Your task to perform on an android device: Search for pizza restaurants on Maps Image 0: 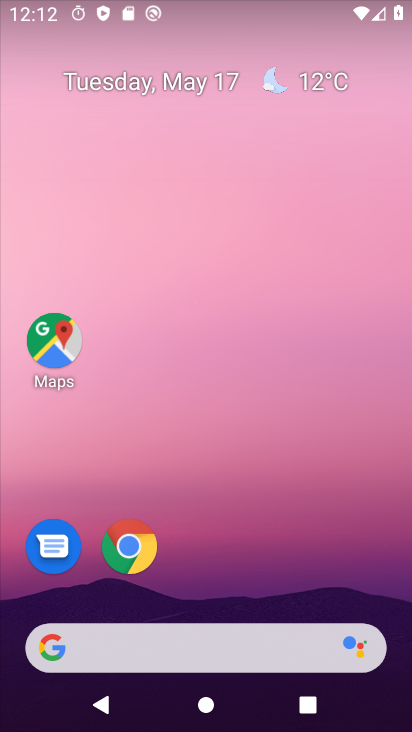
Step 0: click (48, 356)
Your task to perform on an android device: Search for pizza restaurants on Maps Image 1: 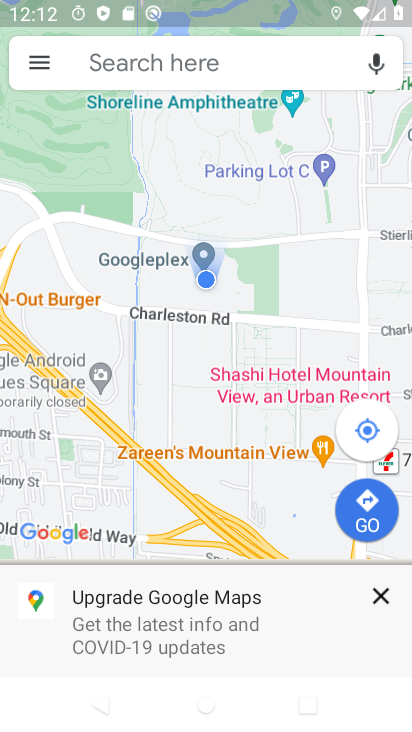
Step 1: click (231, 55)
Your task to perform on an android device: Search for pizza restaurants on Maps Image 2: 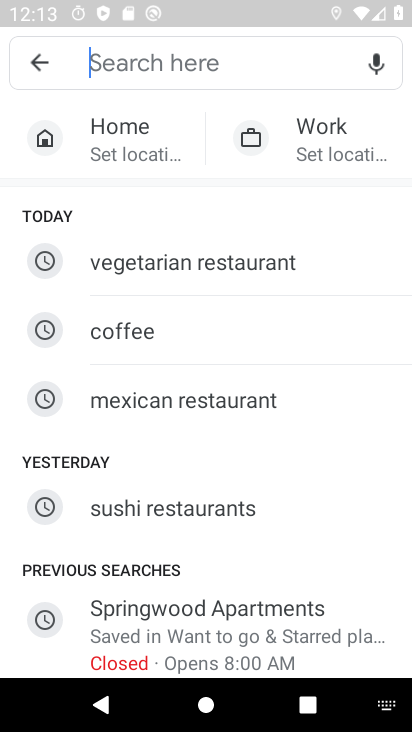
Step 2: drag from (245, 528) to (270, 53)
Your task to perform on an android device: Search for pizza restaurants on Maps Image 3: 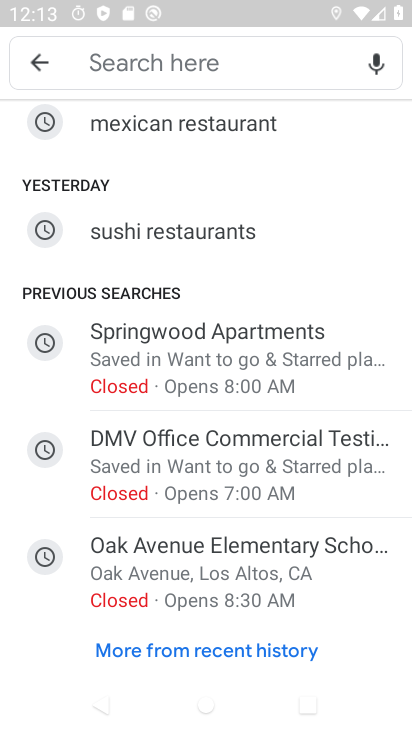
Step 3: drag from (225, 173) to (226, 581)
Your task to perform on an android device: Search for pizza restaurants on Maps Image 4: 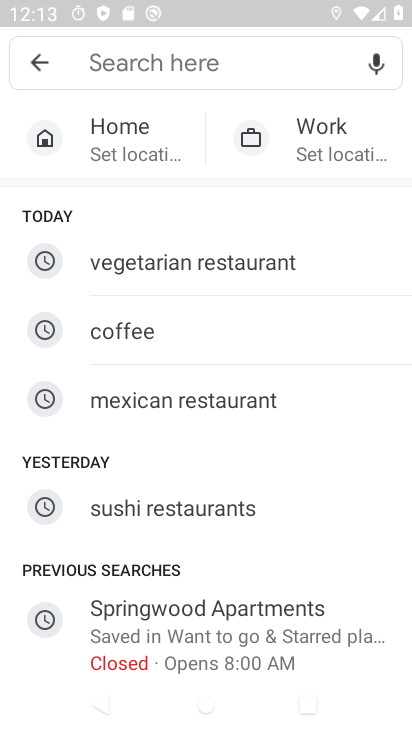
Step 4: click (238, 61)
Your task to perform on an android device: Search for pizza restaurants on Maps Image 5: 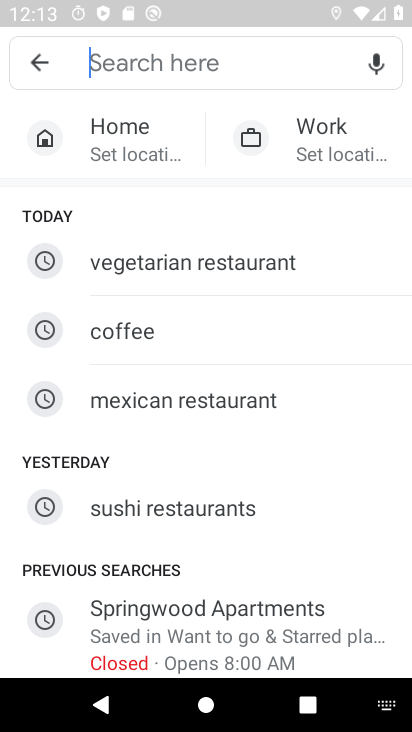
Step 5: type "pizza"
Your task to perform on an android device: Search for pizza restaurants on Maps Image 6: 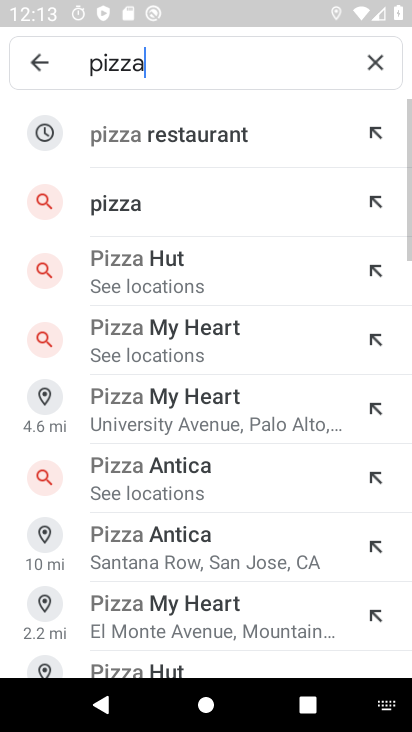
Step 6: click (142, 137)
Your task to perform on an android device: Search for pizza restaurants on Maps Image 7: 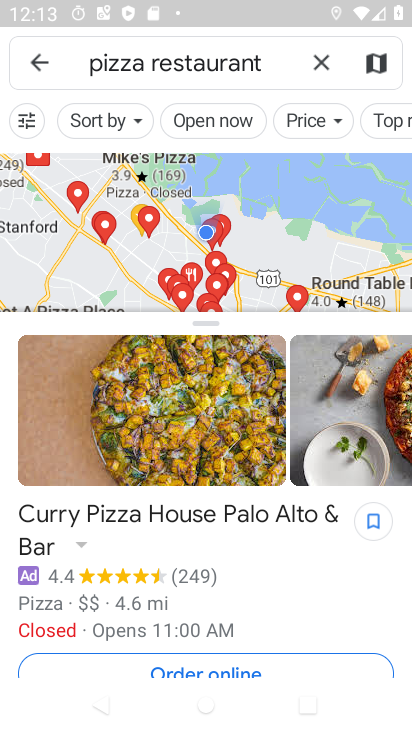
Step 7: task complete